Your task to perform on an android device: turn on javascript in the chrome app Image 0: 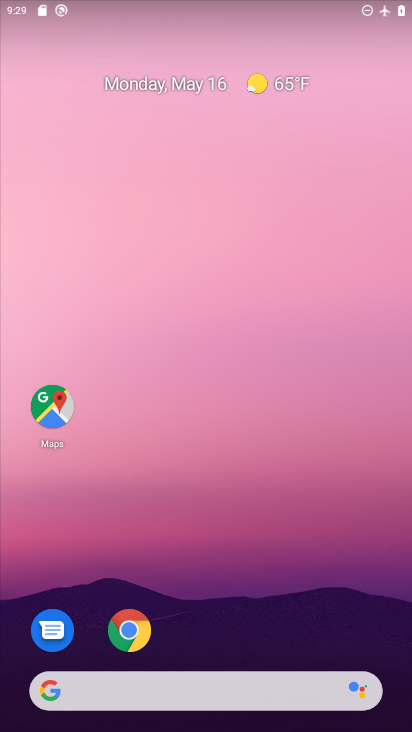
Step 0: click (118, 623)
Your task to perform on an android device: turn on javascript in the chrome app Image 1: 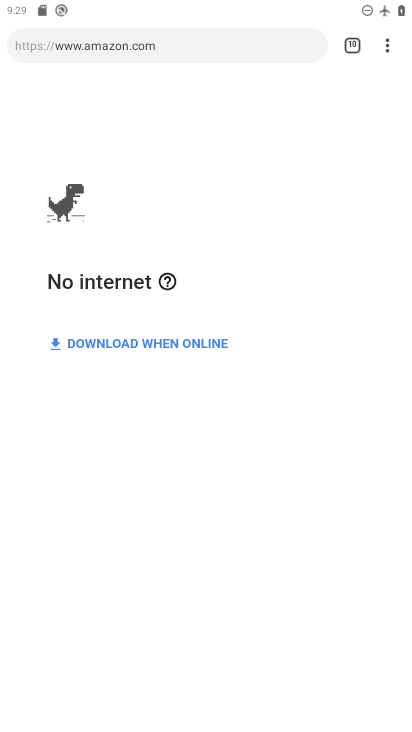
Step 1: click (380, 38)
Your task to perform on an android device: turn on javascript in the chrome app Image 2: 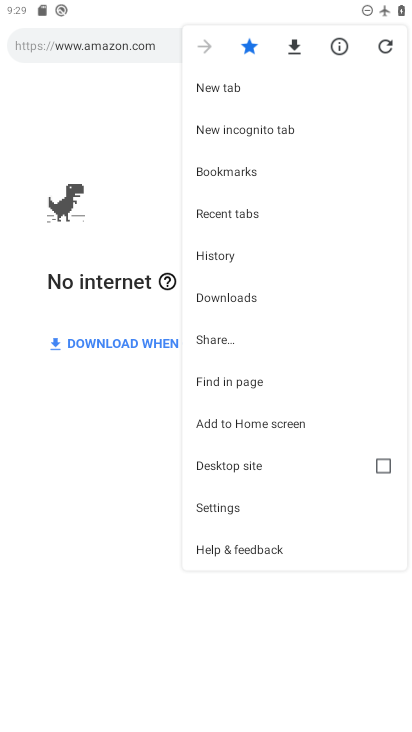
Step 2: click (230, 507)
Your task to perform on an android device: turn on javascript in the chrome app Image 3: 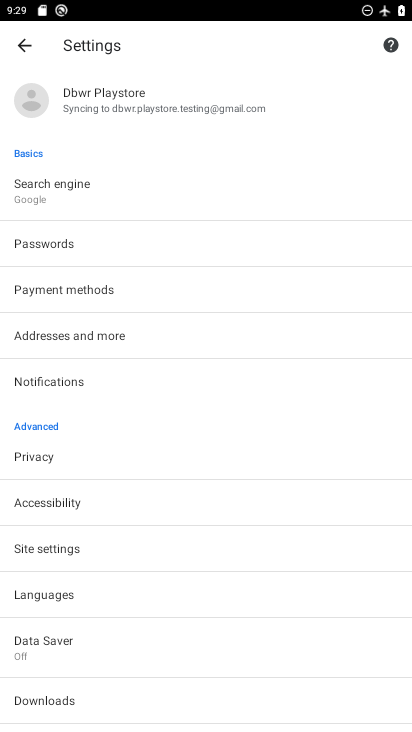
Step 3: drag from (86, 675) to (138, 489)
Your task to perform on an android device: turn on javascript in the chrome app Image 4: 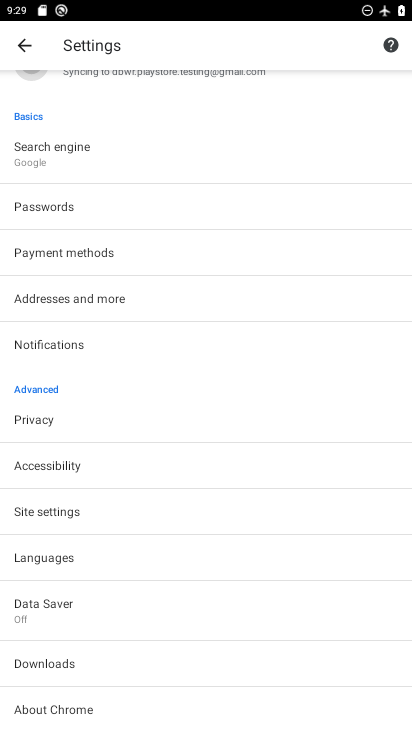
Step 4: drag from (100, 608) to (113, 487)
Your task to perform on an android device: turn on javascript in the chrome app Image 5: 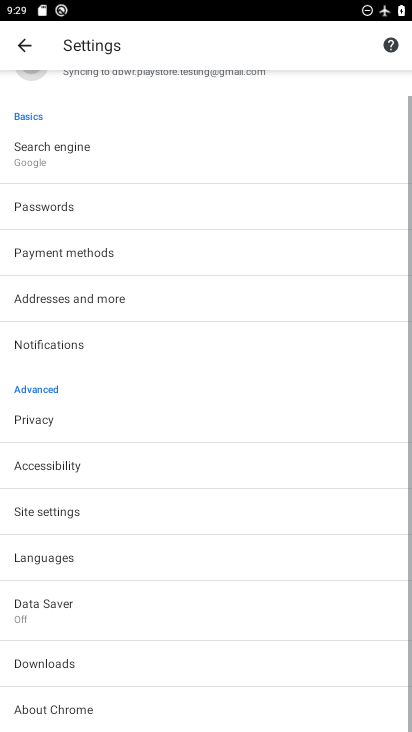
Step 5: click (100, 514)
Your task to perform on an android device: turn on javascript in the chrome app Image 6: 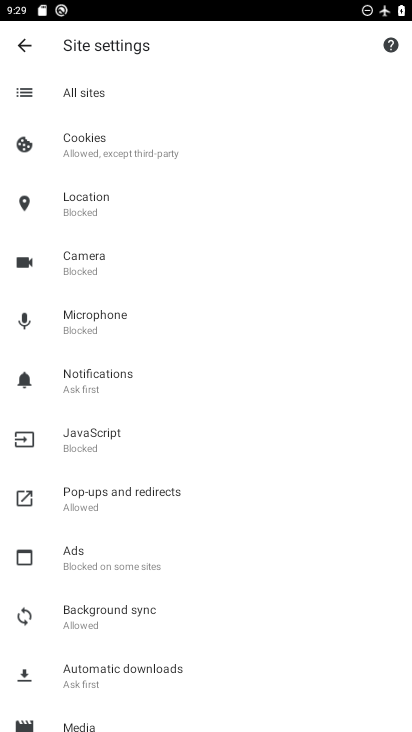
Step 6: click (142, 432)
Your task to perform on an android device: turn on javascript in the chrome app Image 7: 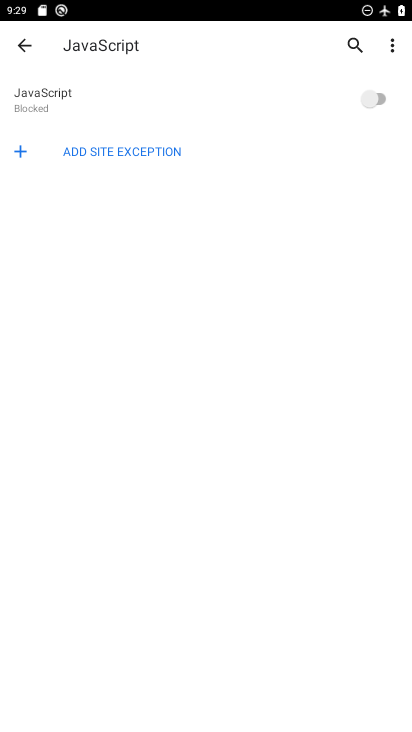
Step 7: click (381, 95)
Your task to perform on an android device: turn on javascript in the chrome app Image 8: 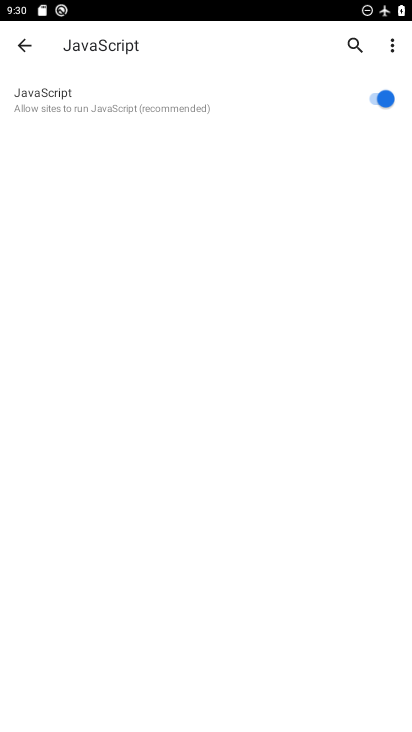
Step 8: task complete